Your task to perform on an android device: Search for the best rated coffee table on Target. Image 0: 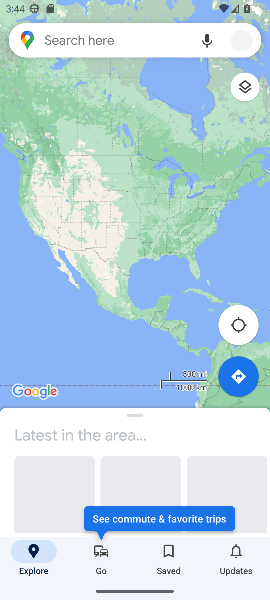
Step 0: press home button
Your task to perform on an android device: Search for the best rated coffee table on Target. Image 1: 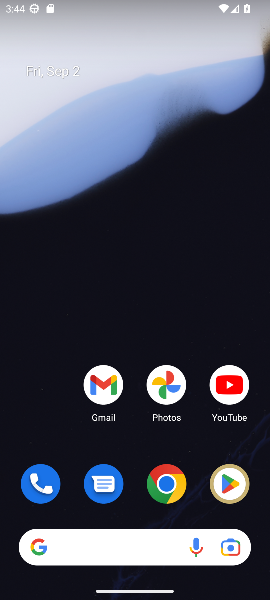
Step 1: click (162, 479)
Your task to perform on an android device: Search for the best rated coffee table on Target. Image 2: 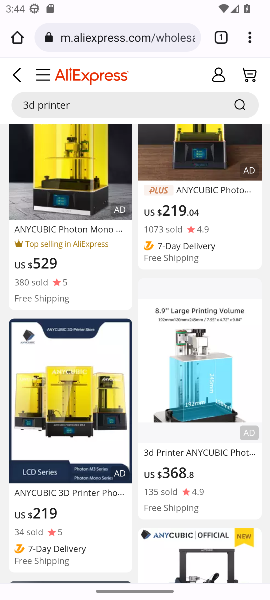
Step 2: click (149, 35)
Your task to perform on an android device: Search for the best rated coffee table on Target. Image 3: 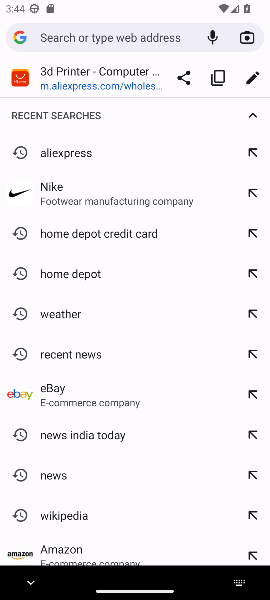
Step 3: type "Target"
Your task to perform on an android device: Search for the best rated coffee table on Target. Image 4: 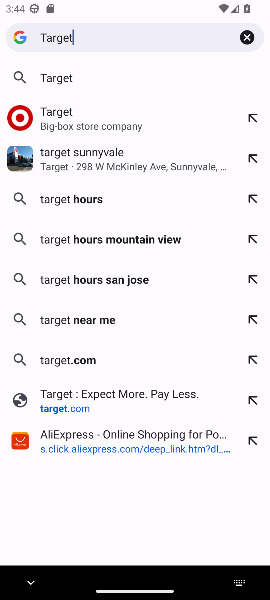
Step 4: click (59, 76)
Your task to perform on an android device: Search for the best rated coffee table on Target. Image 5: 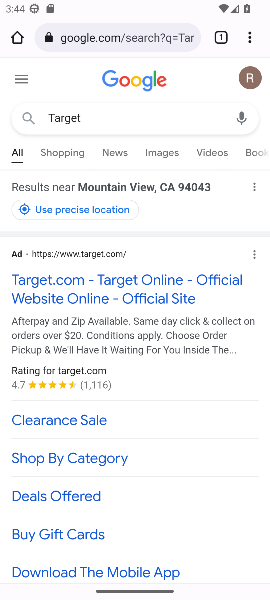
Step 5: click (91, 283)
Your task to perform on an android device: Search for the best rated coffee table on Target. Image 6: 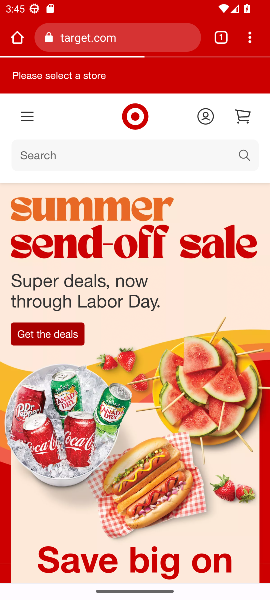
Step 6: click (241, 151)
Your task to perform on an android device: Search for the best rated coffee table on Target. Image 7: 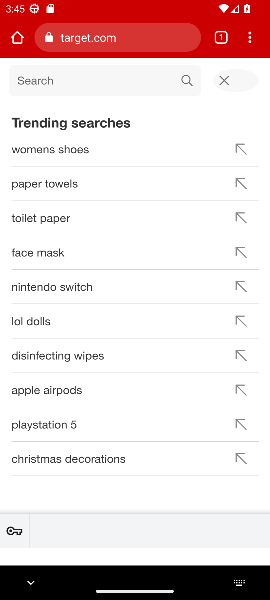
Step 7: type "coffee table"
Your task to perform on an android device: Search for the best rated coffee table on Target. Image 8: 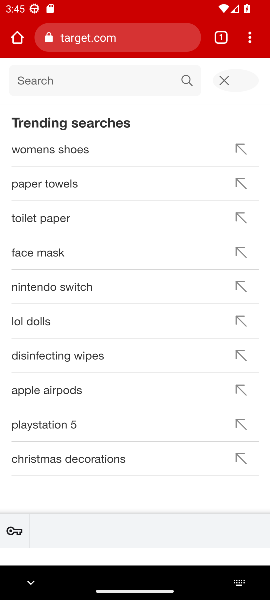
Step 8: press enter
Your task to perform on an android device: Search for the best rated coffee table on Target. Image 9: 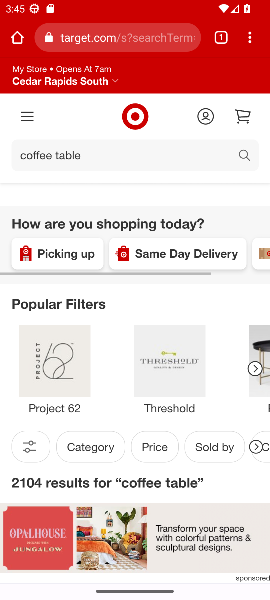
Step 9: task complete